Your task to perform on an android device: Open network settings Image 0: 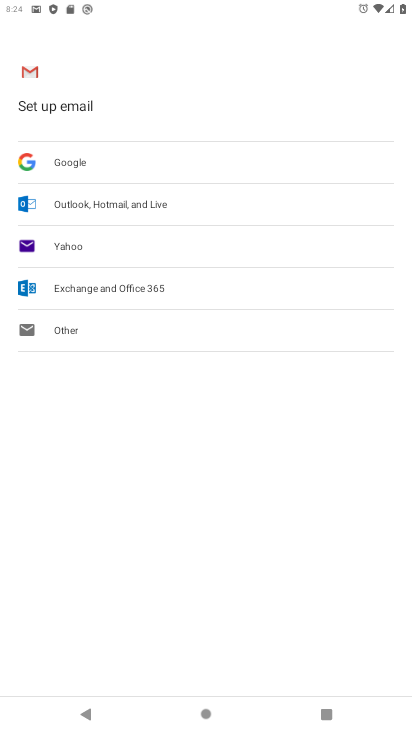
Step 0: press home button
Your task to perform on an android device: Open network settings Image 1: 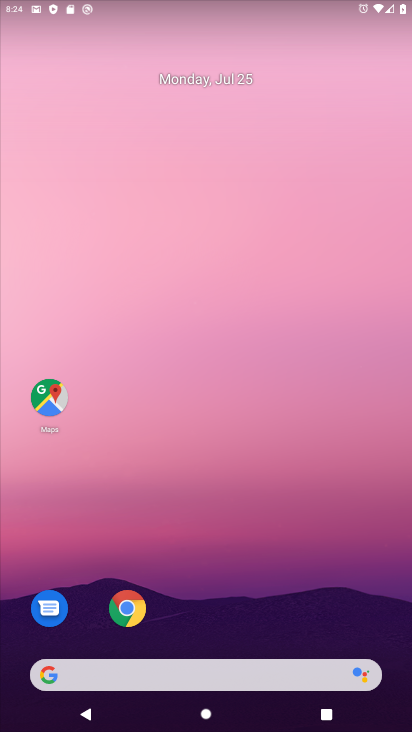
Step 1: drag from (235, 660) to (142, 204)
Your task to perform on an android device: Open network settings Image 2: 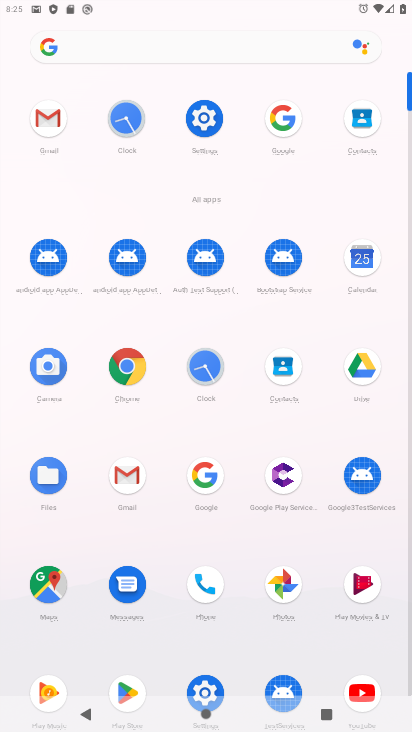
Step 2: click (204, 114)
Your task to perform on an android device: Open network settings Image 3: 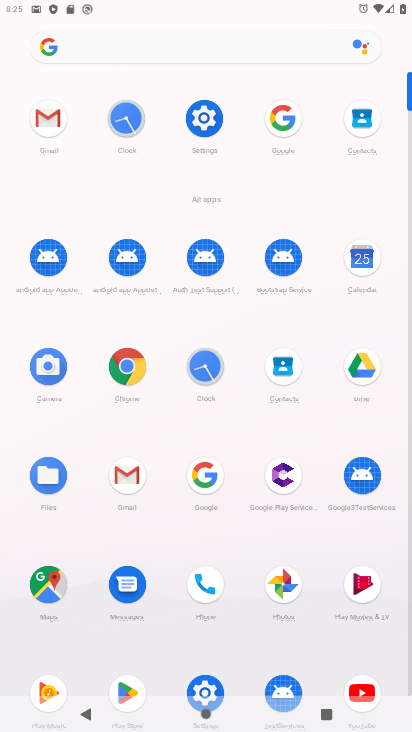
Step 3: click (204, 114)
Your task to perform on an android device: Open network settings Image 4: 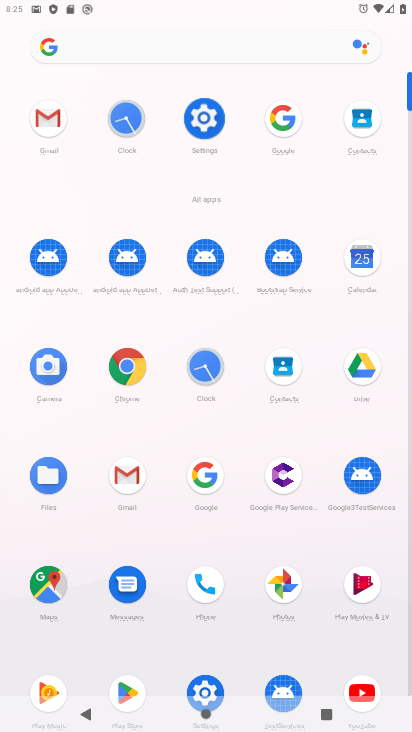
Step 4: click (204, 114)
Your task to perform on an android device: Open network settings Image 5: 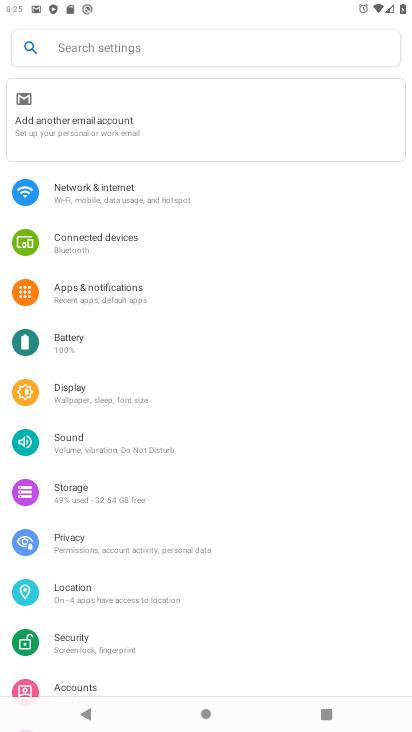
Step 5: click (132, 193)
Your task to perform on an android device: Open network settings Image 6: 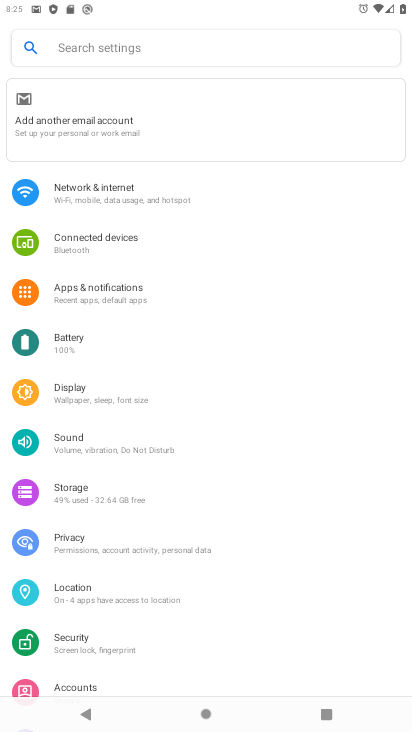
Step 6: click (132, 193)
Your task to perform on an android device: Open network settings Image 7: 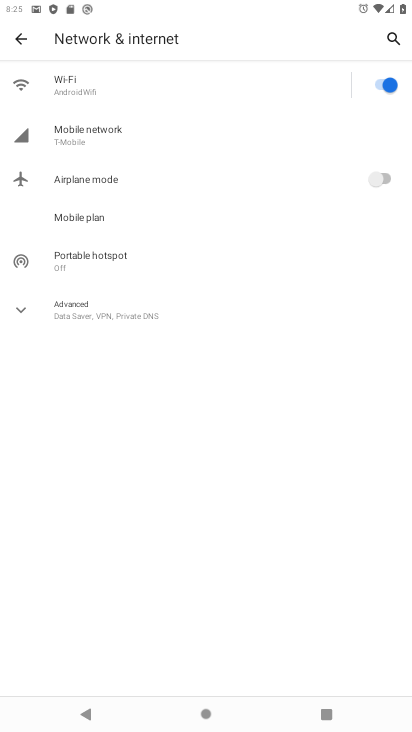
Step 7: task complete